Your task to perform on an android device: When is my next meeting? Image 0: 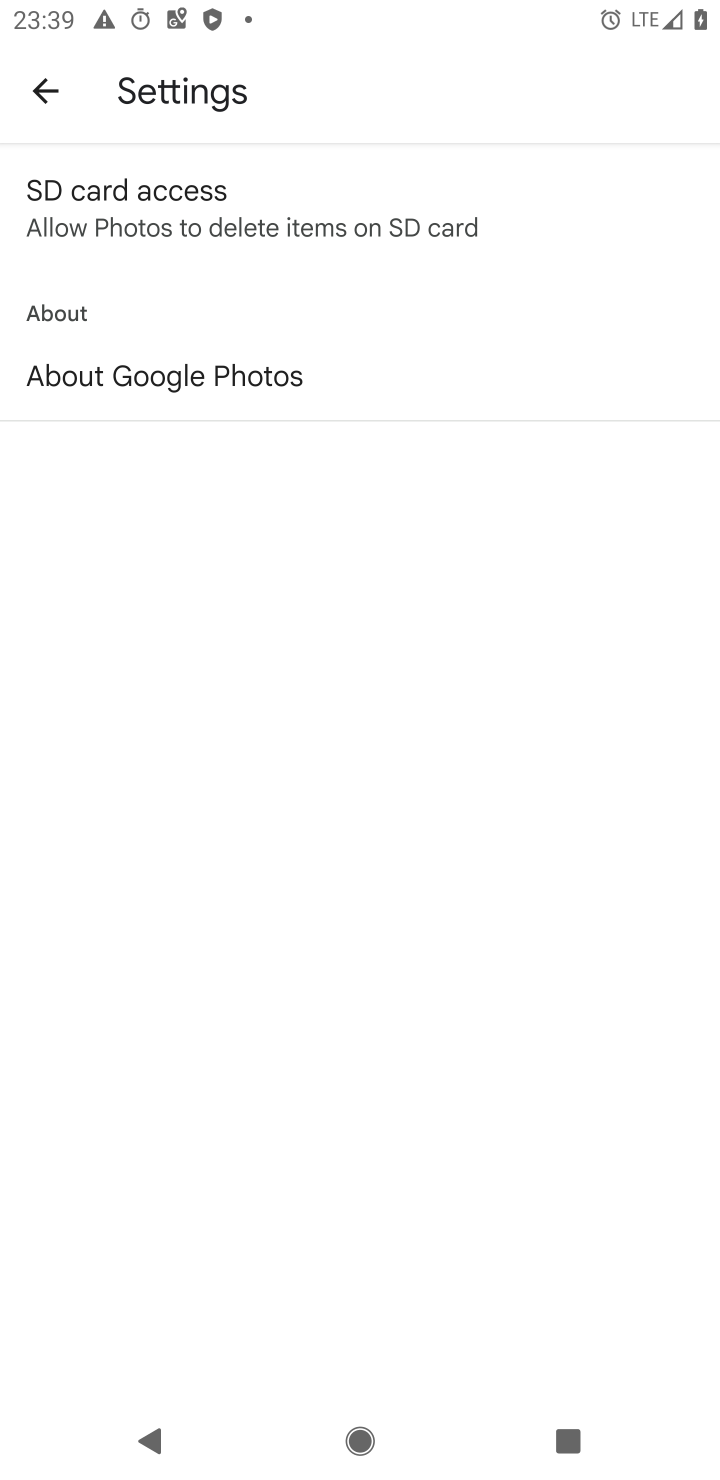
Step 0: press home button
Your task to perform on an android device: When is my next meeting? Image 1: 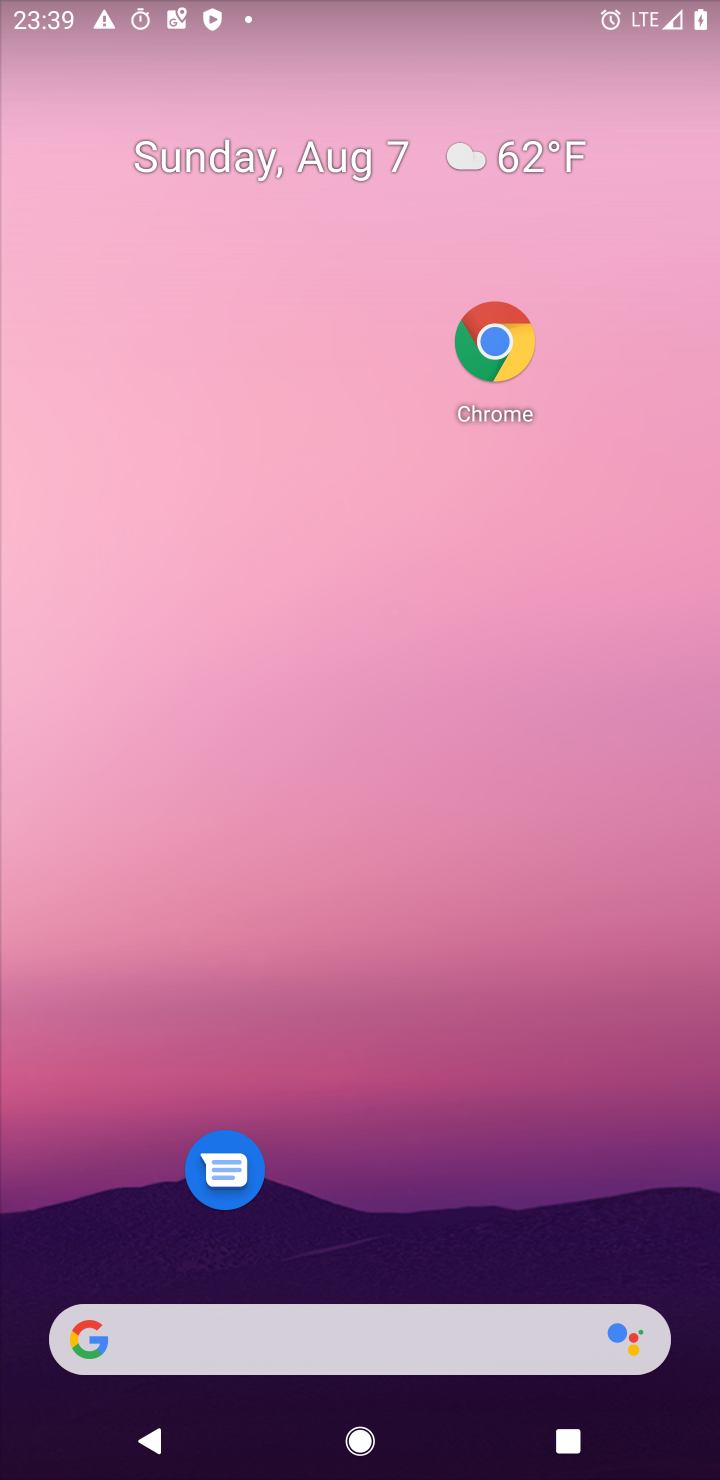
Step 1: drag from (459, 1294) to (438, 91)
Your task to perform on an android device: When is my next meeting? Image 2: 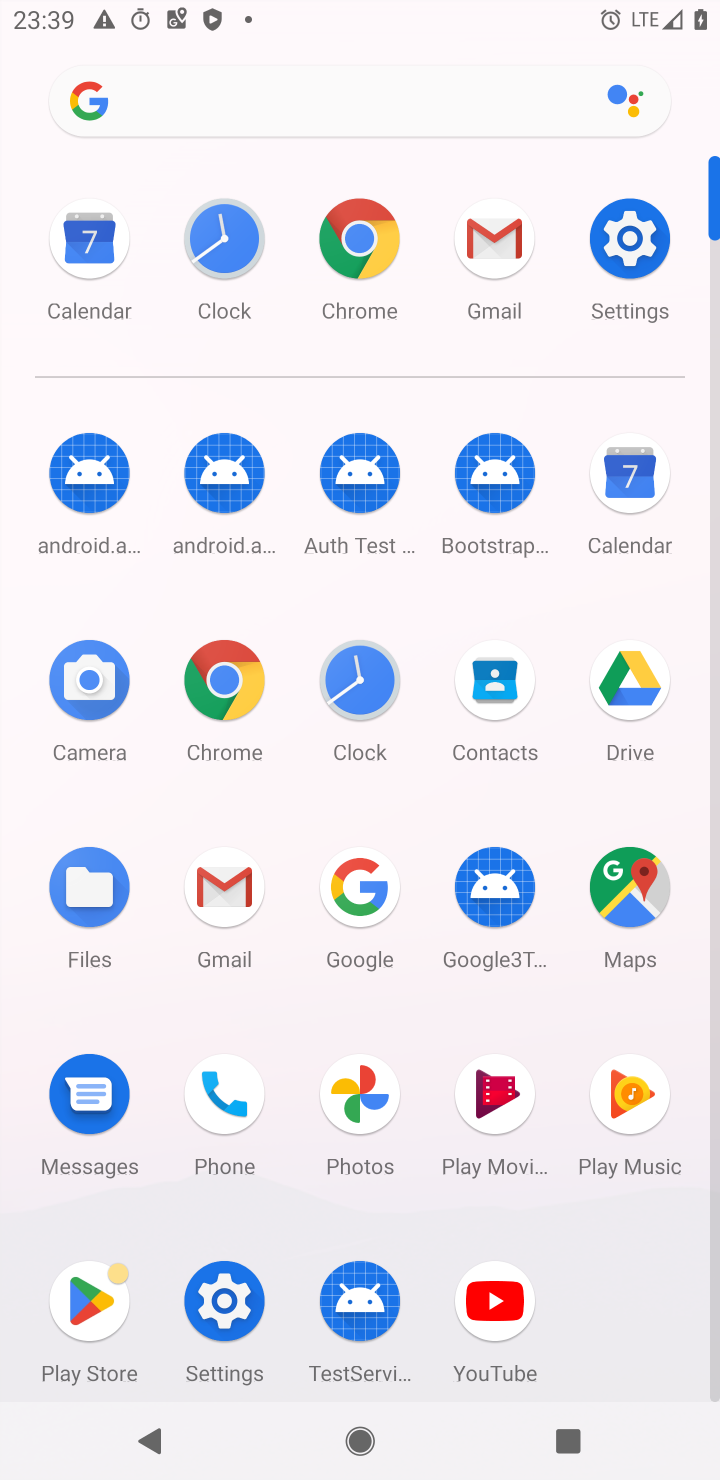
Step 2: click (635, 469)
Your task to perform on an android device: When is my next meeting? Image 3: 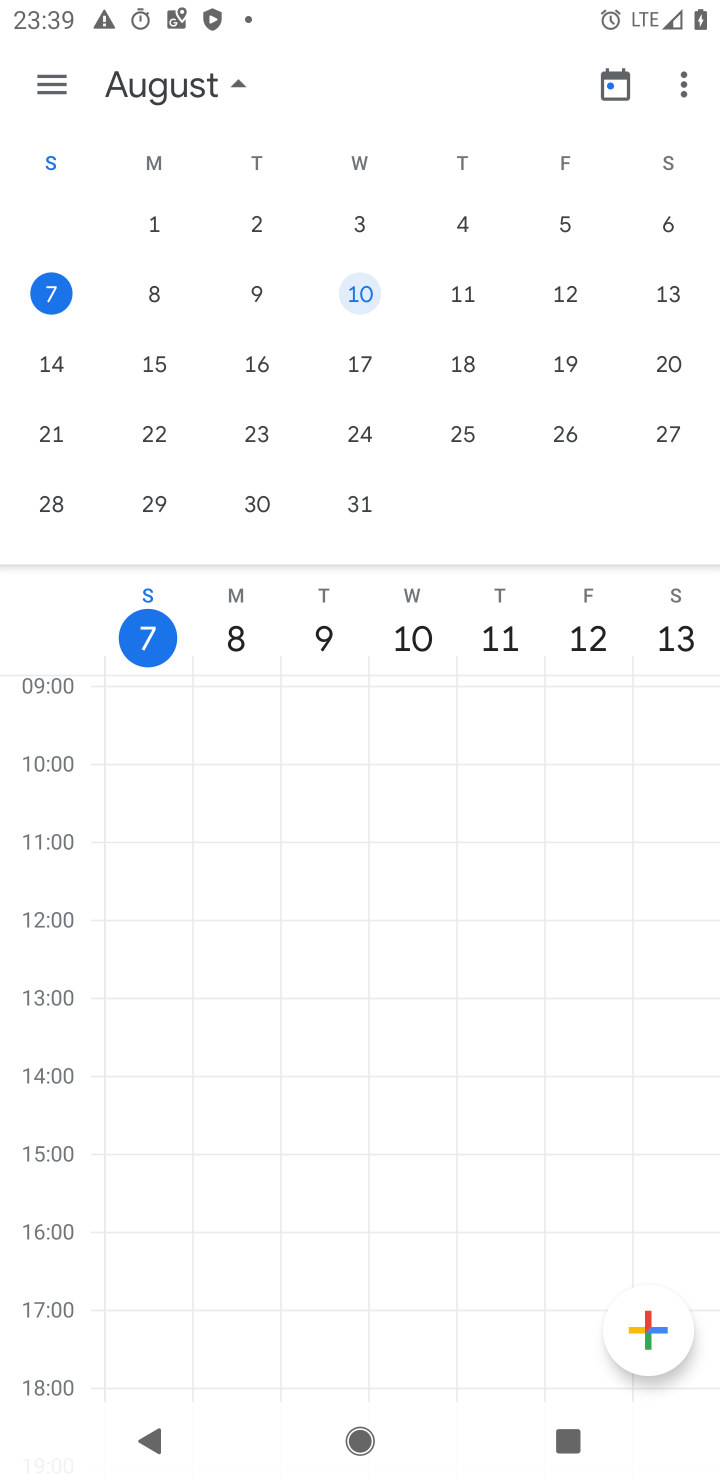
Step 3: task complete